Your task to perform on an android device: Set the phone to "Do not disturb". Image 0: 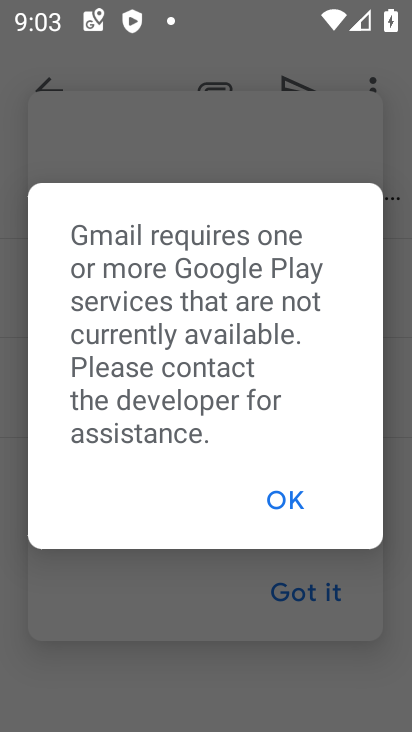
Step 0: press home button
Your task to perform on an android device: Set the phone to "Do not disturb". Image 1: 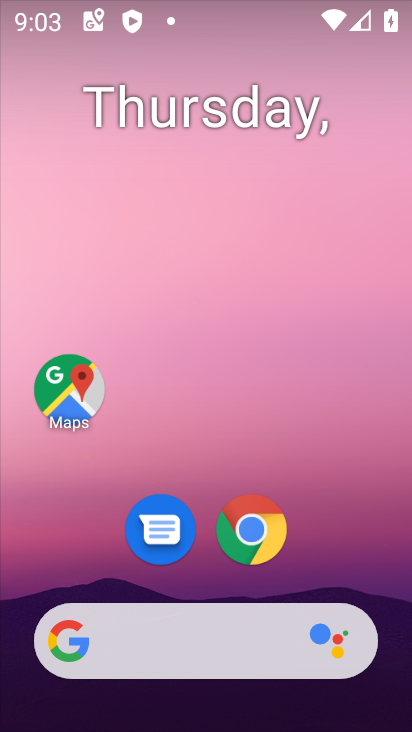
Step 1: drag from (207, 724) to (214, 64)
Your task to perform on an android device: Set the phone to "Do not disturb". Image 2: 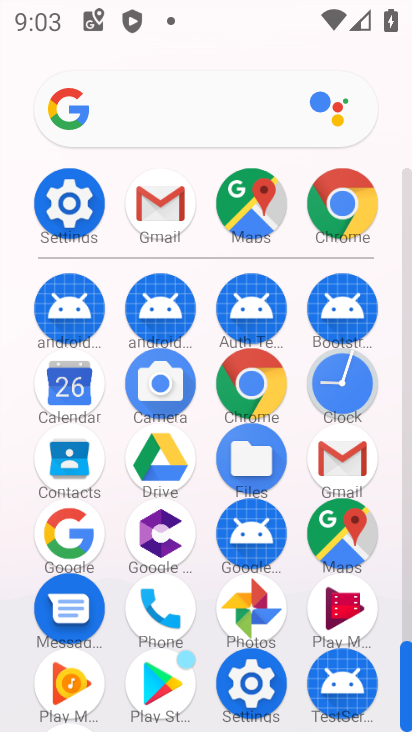
Step 2: click (66, 210)
Your task to perform on an android device: Set the phone to "Do not disturb". Image 3: 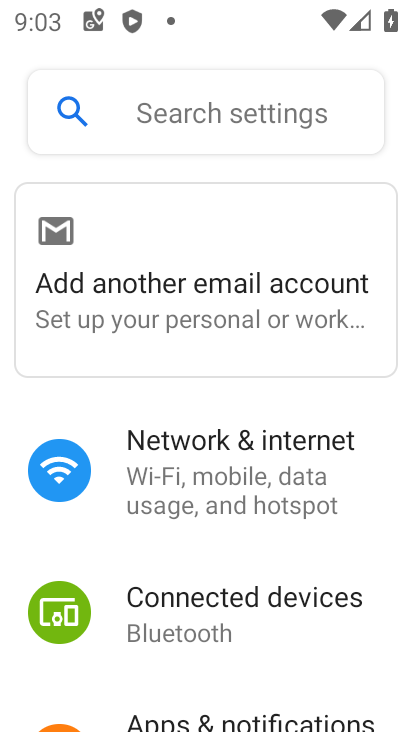
Step 3: drag from (217, 706) to (210, 262)
Your task to perform on an android device: Set the phone to "Do not disturb". Image 4: 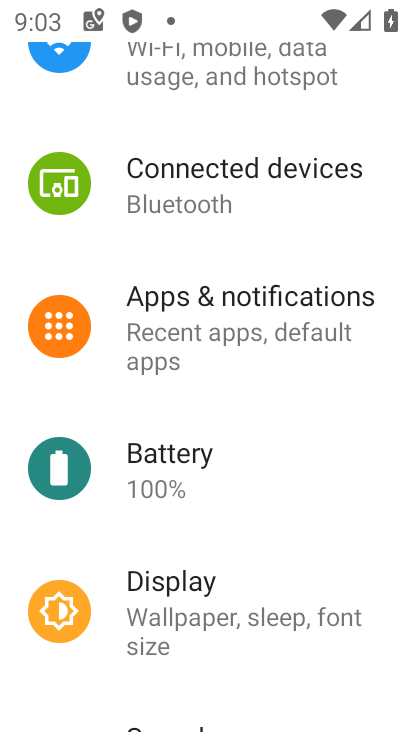
Step 4: drag from (173, 684) to (195, 338)
Your task to perform on an android device: Set the phone to "Do not disturb". Image 5: 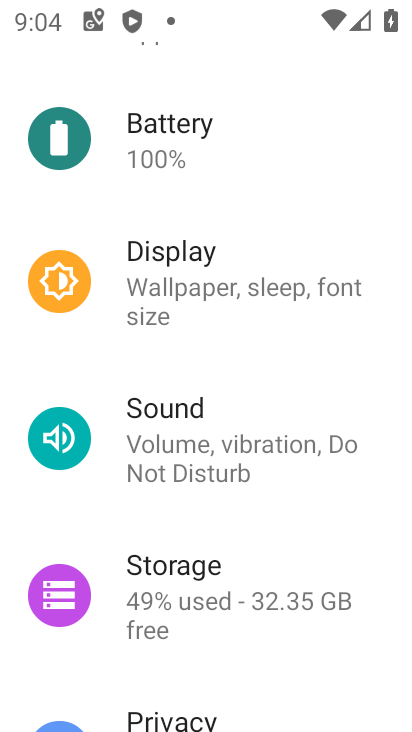
Step 5: click (192, 463)
Your task to perform on an android device: Set the phone to "Do not disturb". Image 6: 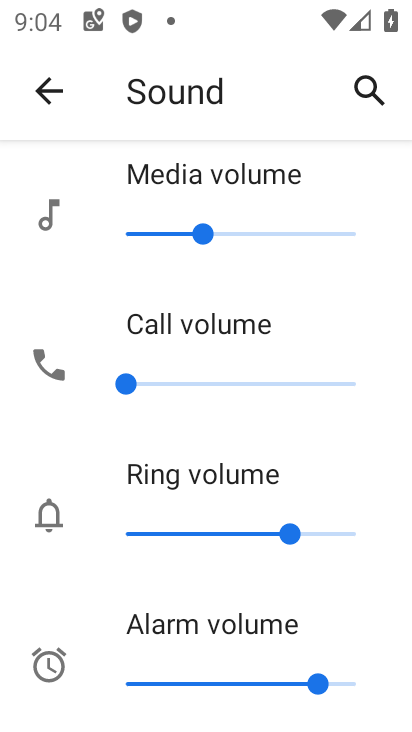
Step 6: drag from (74, 164) to (66, 39)
Your task to perform on an android device: Set the phone to "Do not disturb". Image 7: 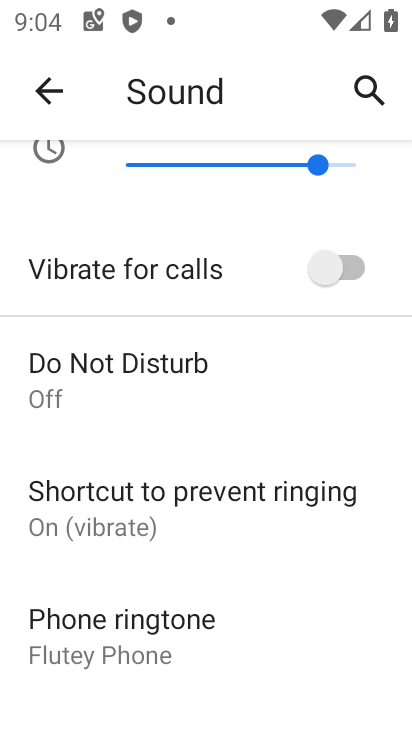
Step 7: click (101, 372)
Your task to perform on an android device: Set the phone to "Do not disturb". Image 8: 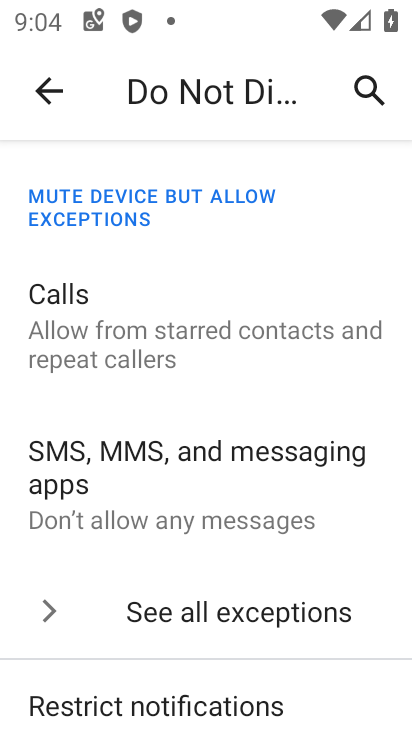
Step 8: drag from (322, 710) to (304, 172)
Your task to perform on an android device: Set the phone to "Do not disturb". Image 9: 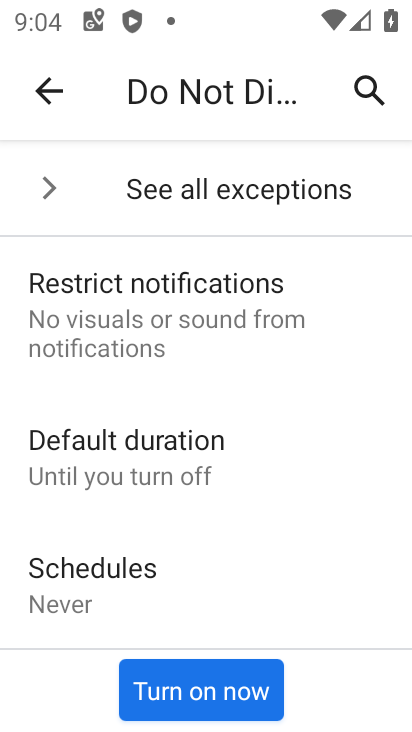
Step 9: click (174, 691)
Your task to perform on an android device: Set the phone to "Do not disturb". Image 10: 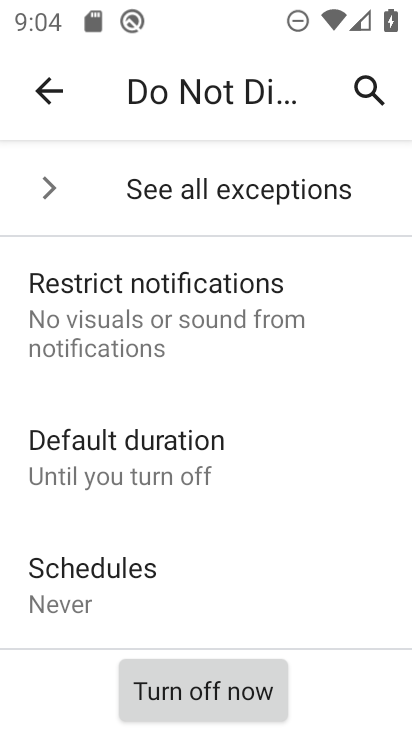
Step 10: task complete